Your task to perform on an android device: add a contact in the contacts app Image 0: 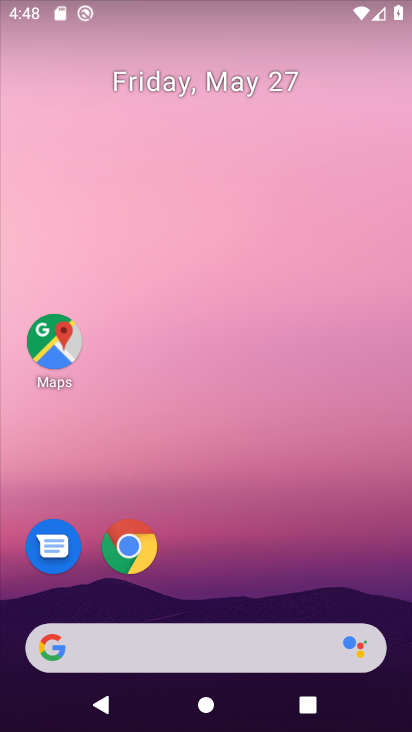
Step 0: drag from (272, 568) to (201, 50)
Your task to perform on an android device: add a contact in the contacts app Image 1: 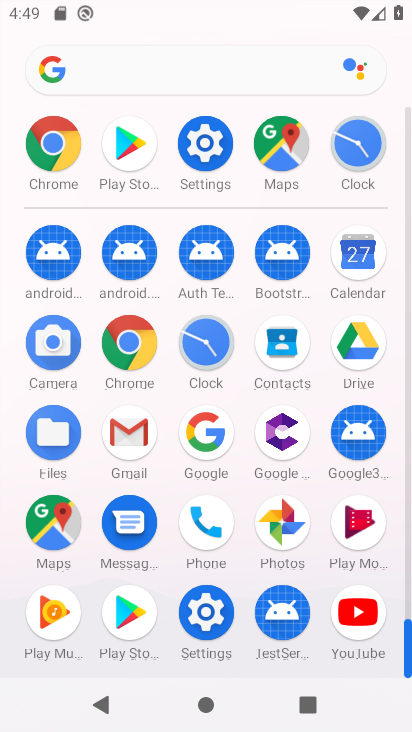
Step 1: drag from (3, 593) to (22, 293)
Your task to perform on an android device: add a contact in the contacts app Image 2: 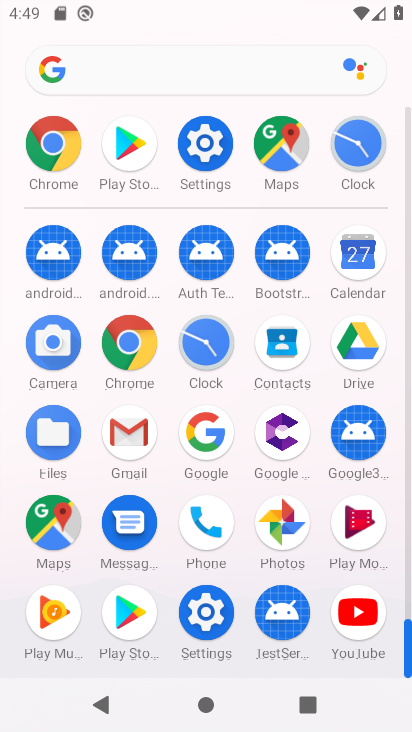
Step 2: click (275, 339)
Your task to perform on an android device: add a contact in the contacts app Image 3: 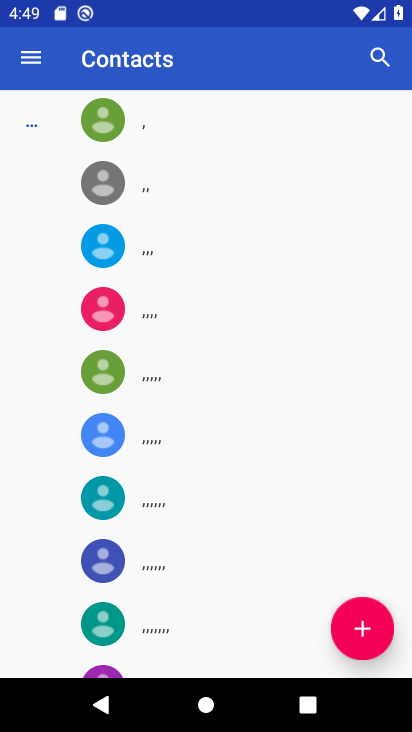
Step 3: click (360, 619)
Your task to perform on an android device: add a contact in the contacts app Image 4: 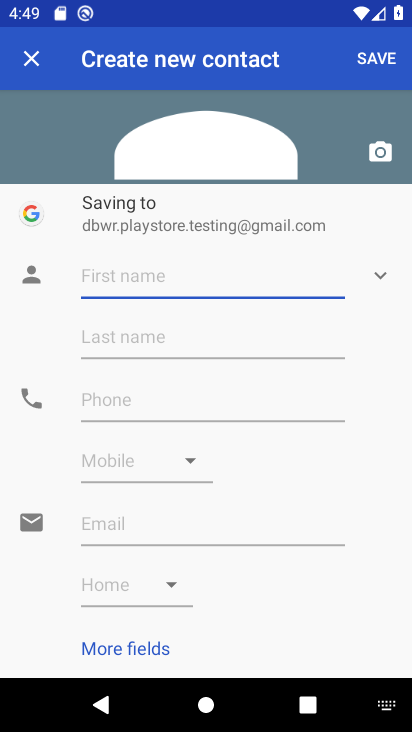
Step 4: type "Xcv"
Your task to perform on an android device: add a contact in the contacts app Image 5: 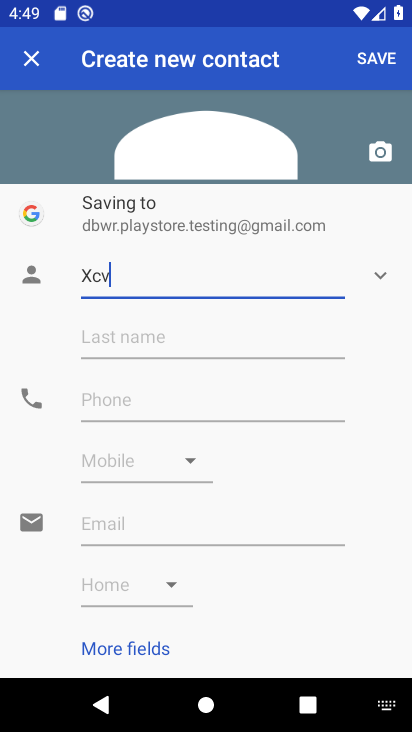
Step 5: type ""
Your task to perform on an android device: add a contact in the contacts app Image 6: 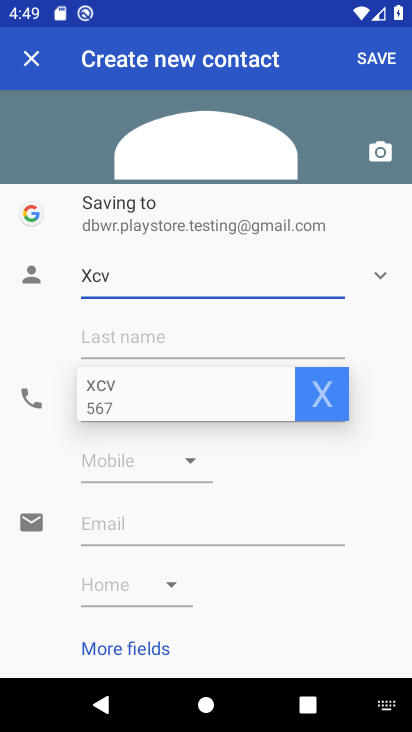
Step 6: click (110, 401)
Your task to perform on an android device: add a contact in the contacts app Image 7: 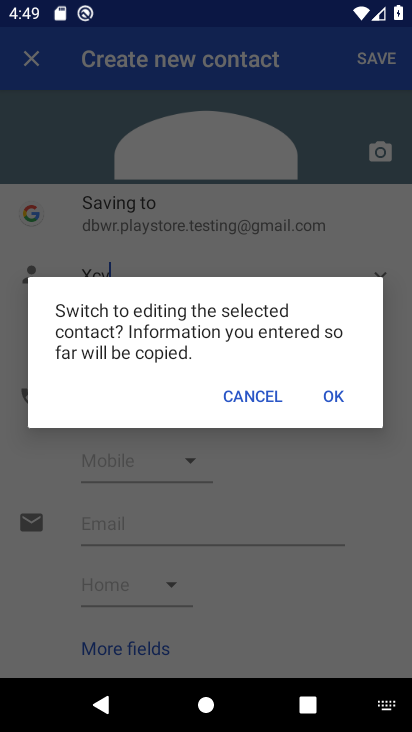
Step 7: click (335, 389)
Your task to perform on an android device: add a contact in the contacts app Image 8: 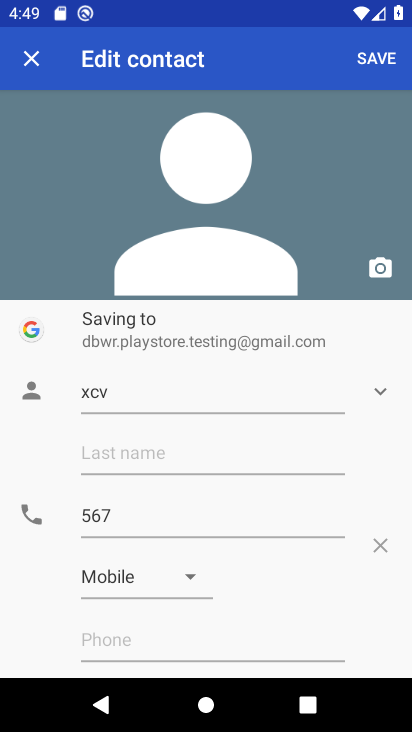
Step 8: click (381, 56)
Your task to perform on an android device: add a contact in the contacts app Image 9: 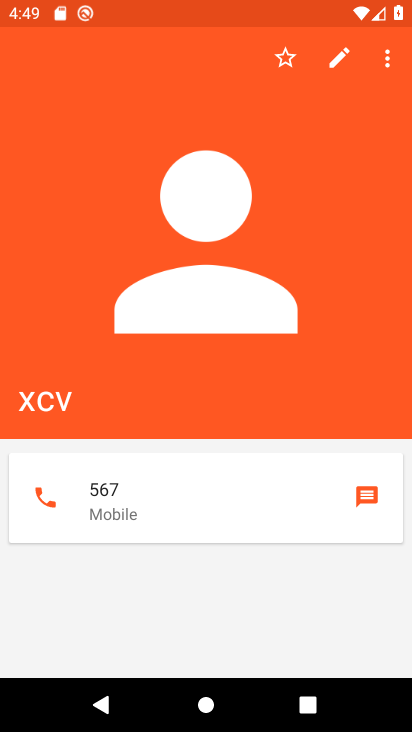
Step 9: task complete